Your task to perform on an android device: install app "Google Docs" Image 0: 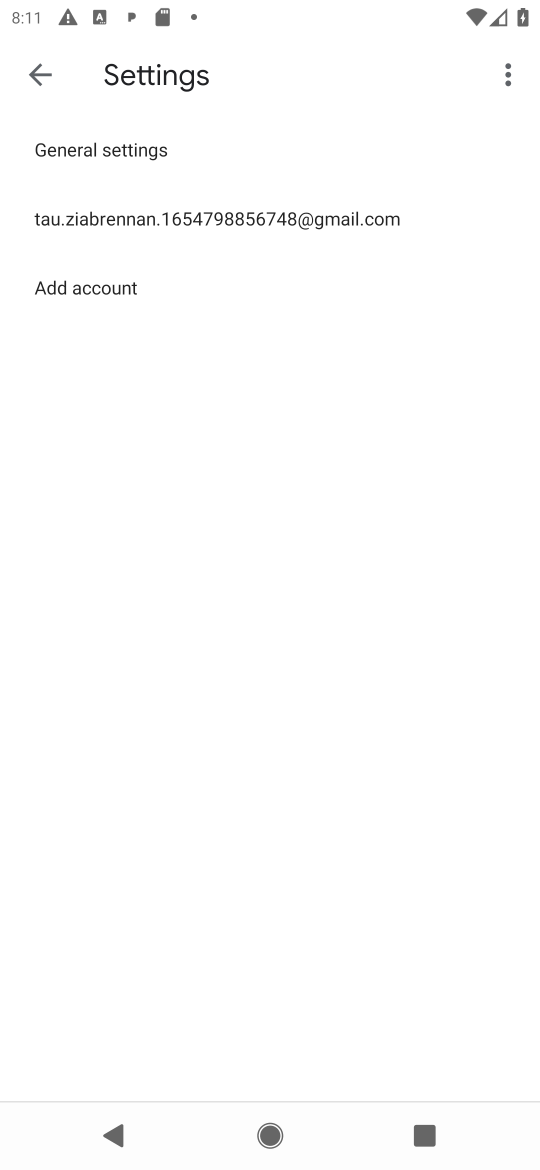
Step 0: press home button
Your task to perform on an android device: install app "Google Docs" Image 1: 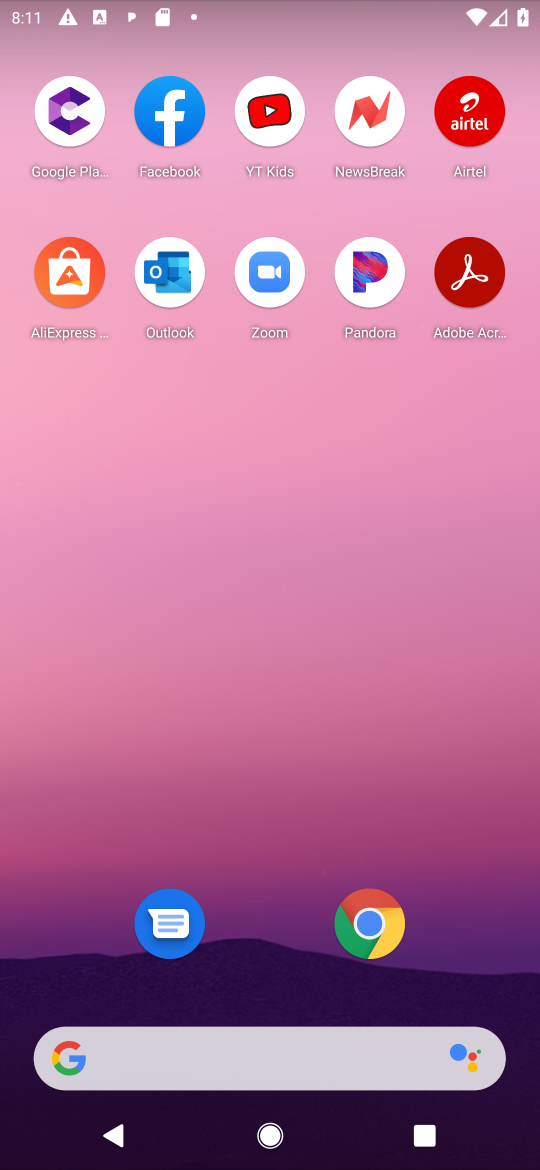
Step 1: press home button
Your task to perform on an android device: install app "Google Docs" Image 2: 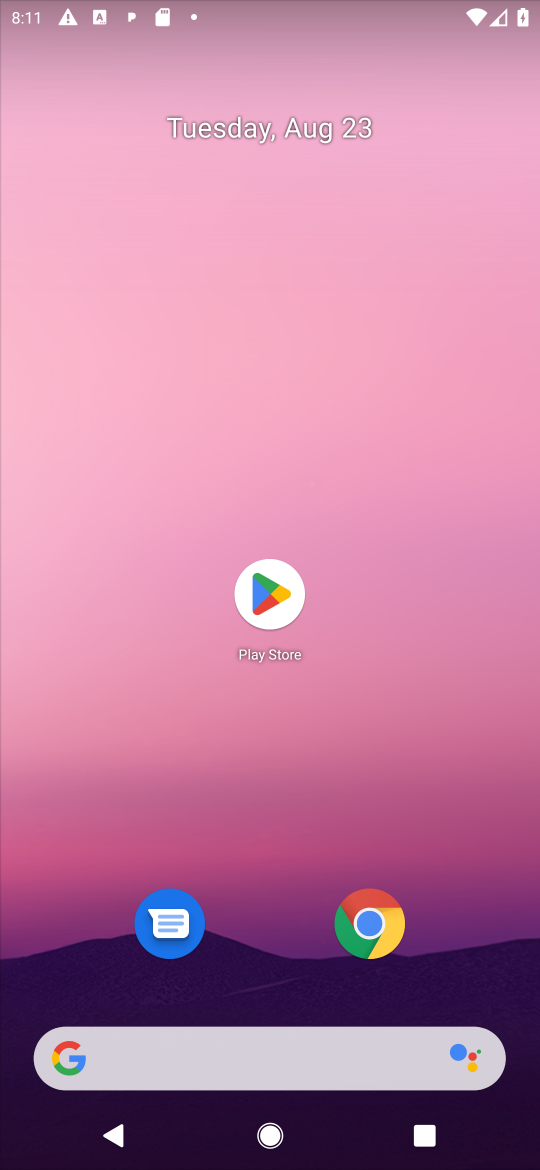
Step 2: click (278, 598)
Your task to perform on an android device: install app "Google Docs" Image 3: 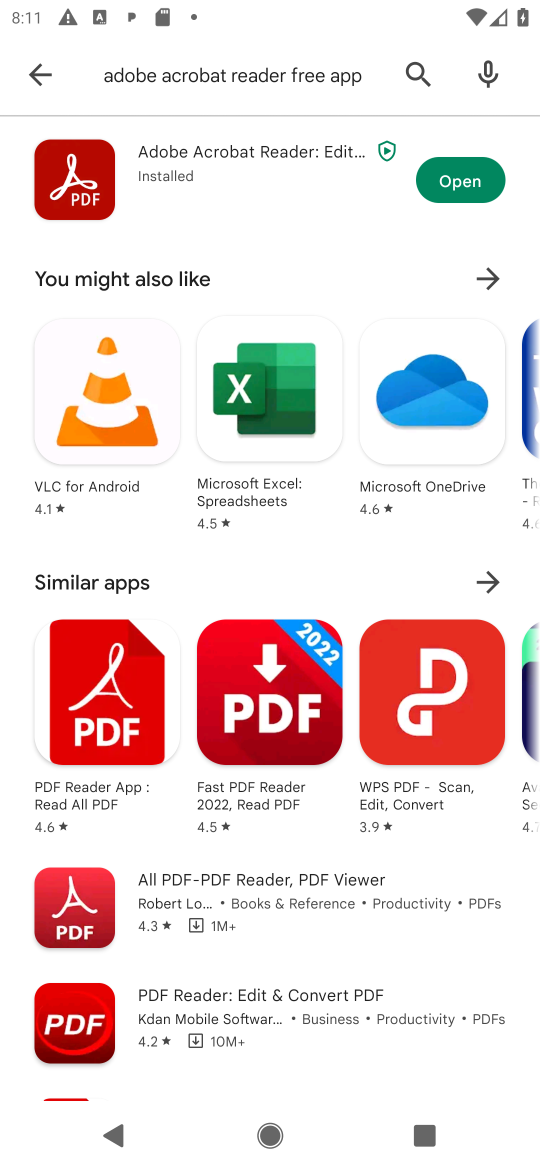
Step 3: click (405, 70)
Your task to perform on an android device: install app "Google Docs" Image 4: 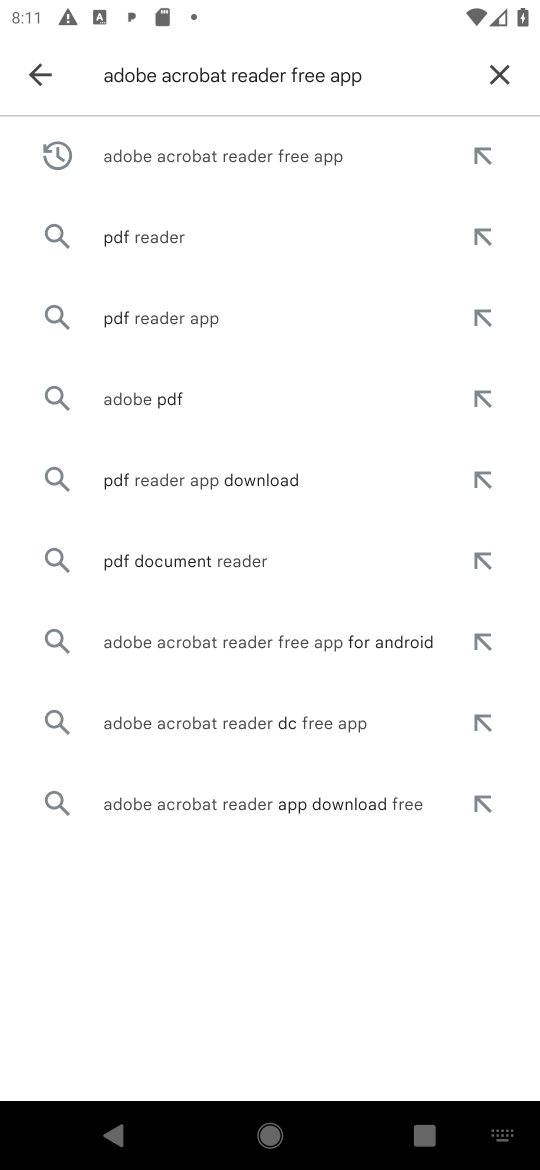
Step 4: click (496, 83)
Your task to perform on an android device: install app "Google Docs" Image 5: 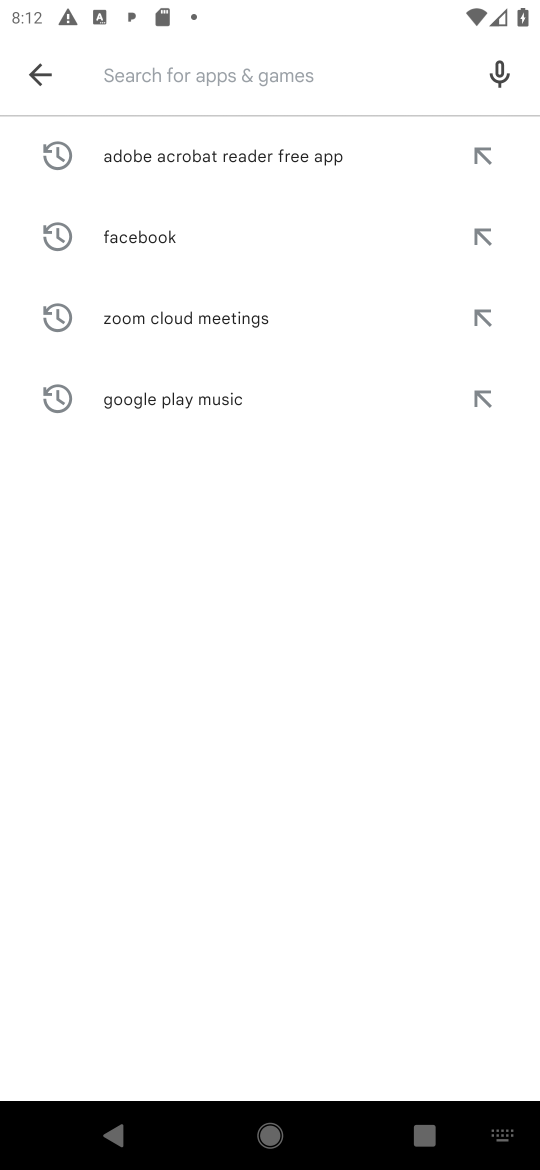
Step 5: type "Google Docs"
Your task to perform on an android device: install app "Google Docs" Image 6: 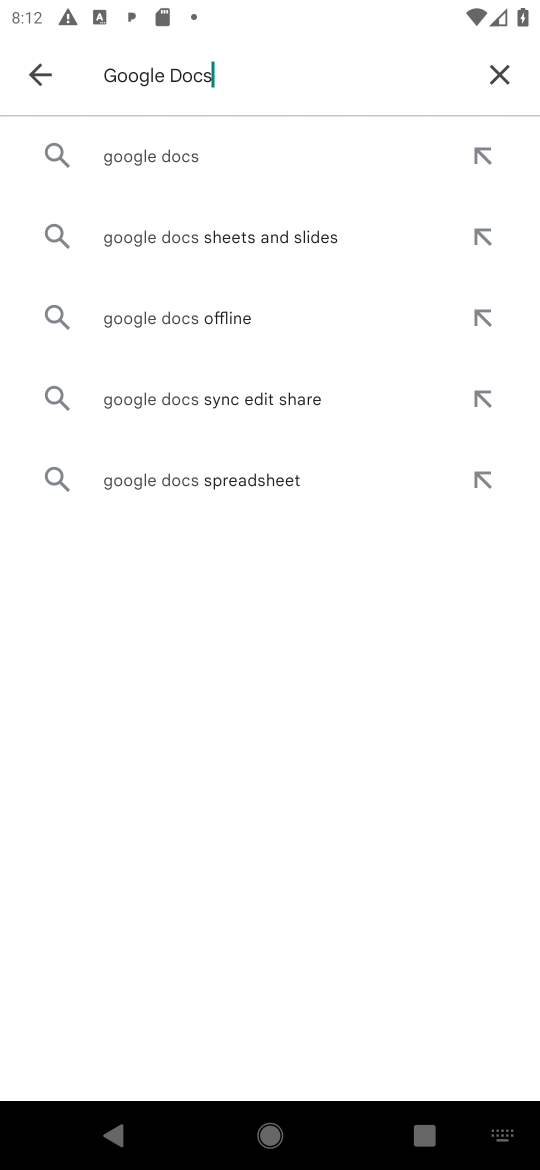
Step 6: click (171, 154)
Your task to perform on an android device: install app "Google Docs" Image 7: 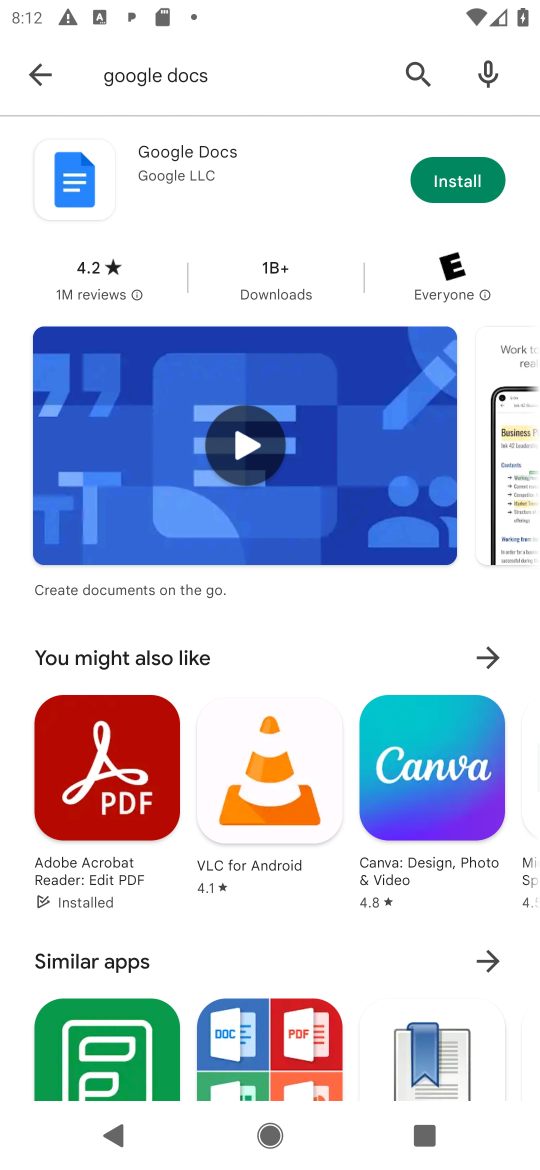
Step 7: click (453, 174)
Your task to perform on an android device: install app "Google Docs" Image 8: 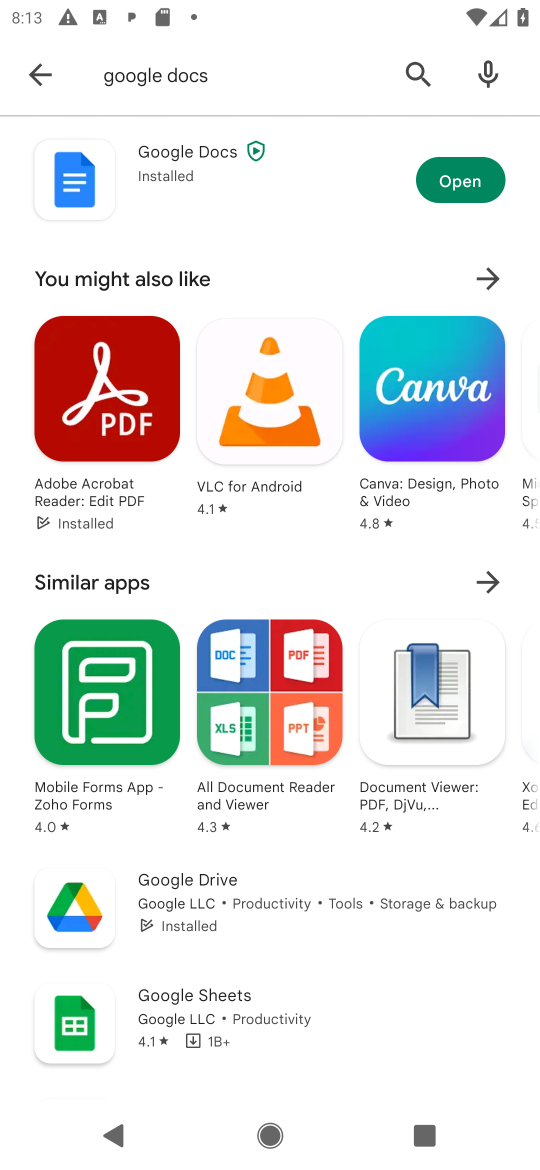
Step 8: task complete